Your task to perform on an android device: Search for Mexican restaurants on Maps Image 0: 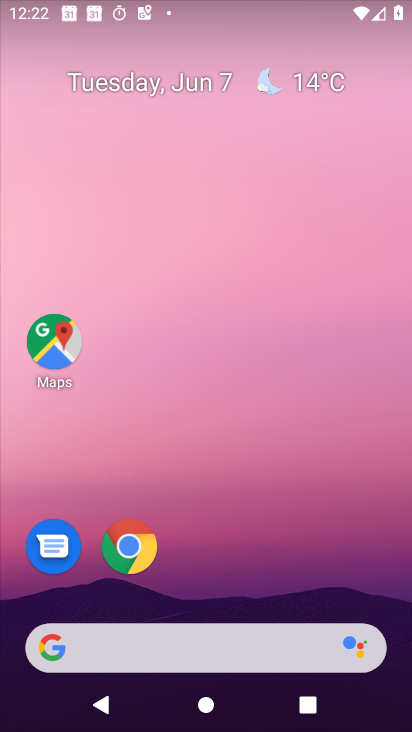
Step 0: click (65, 349)
Your task to perform on an android device: Search for Mexican restaurants on Maps Image 1: 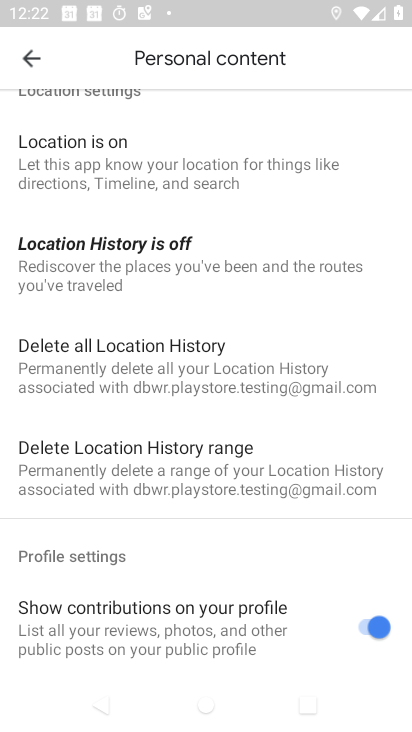
Step 1: click (21, 50)
Your task to perform on an android device: Search for Mexican restaurants on Maps Image 2: 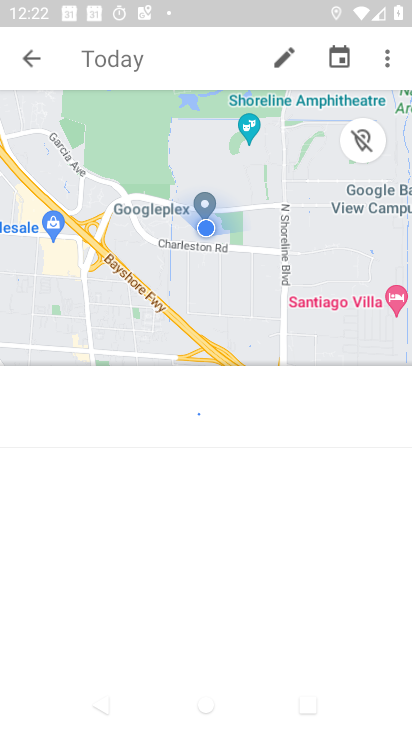
Step 2: click (35, 50)
Your task to perform on an android device: Search for Mexican restaurants on Maps Image 3: 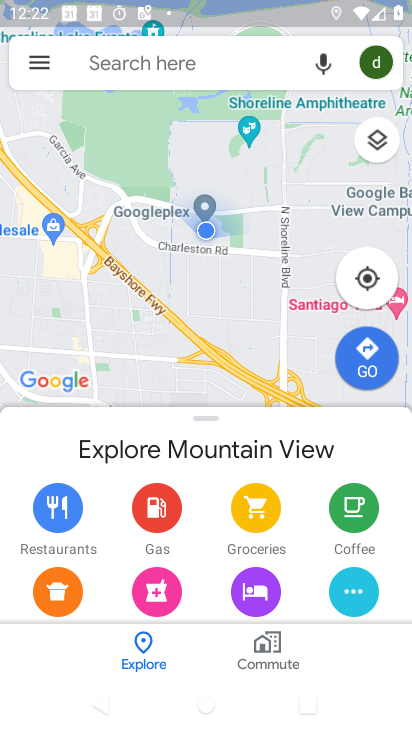
Step 3: click (149, 70)
Your task to perform on an android device: Search for Mexican restaurants on Maps Image 4: 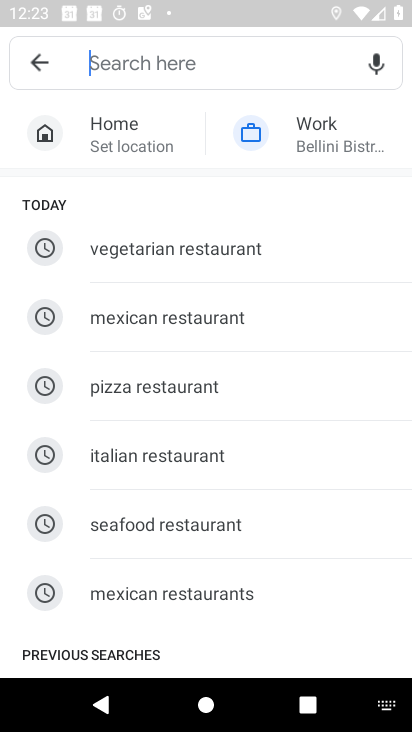
Step 4: type "Mexican restaurants"
Your task to perform on an android device: Search for Mexican restaurants on Maps Image 5: 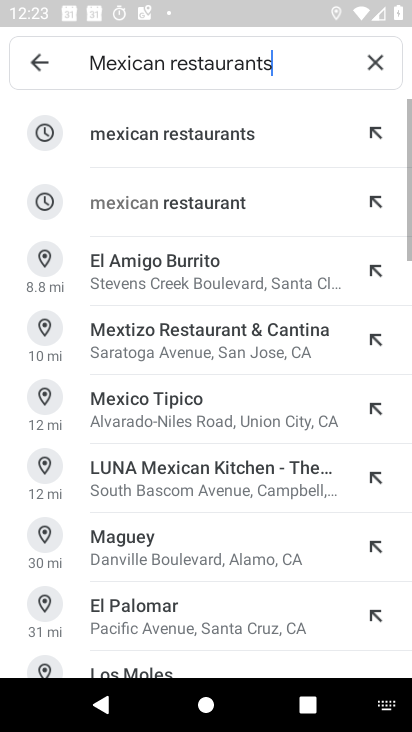
Step 5: click (216, 142)
Your task to perform on an android device: Search for Mexican restaurants on Maps Image 6: 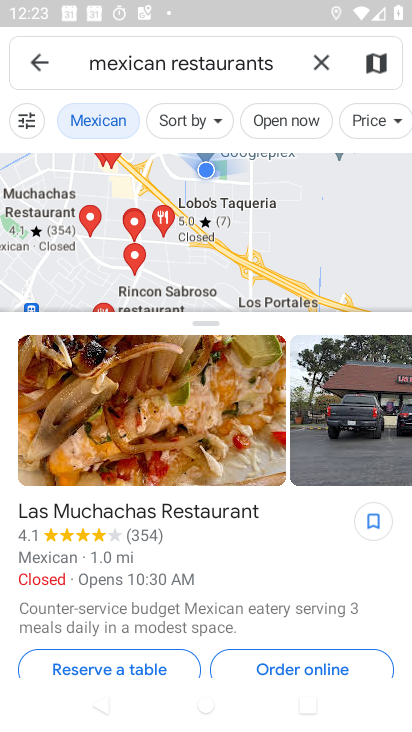
Step 6: task complete